Your task to perform on an android device: turn off picture-in-picture Image 0: 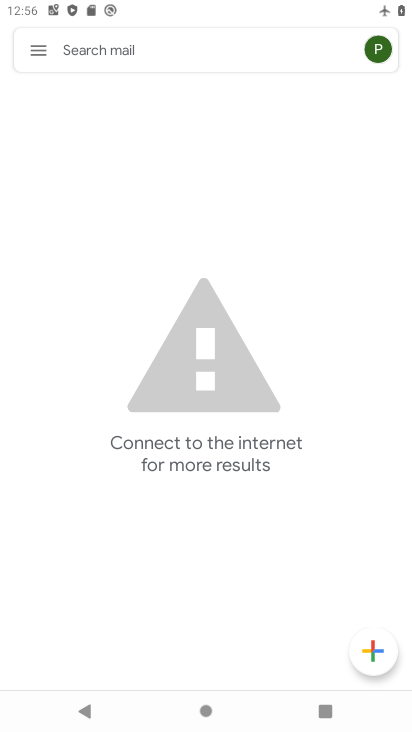
Step 0: press home button
Your task to perform on an android device: turn off picture-in-picture Image 1: 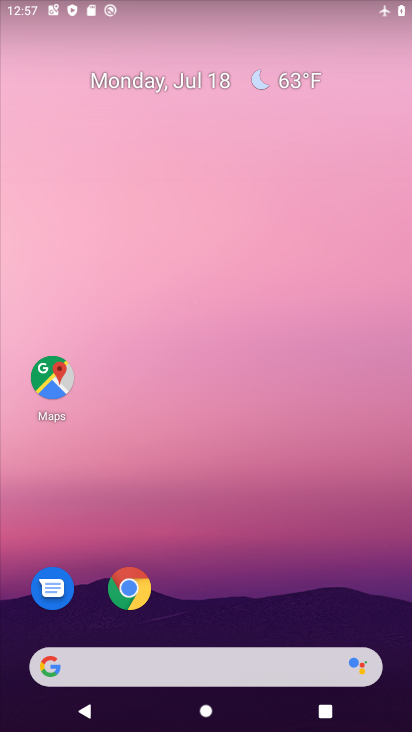
Step 1: drag from (233, 720) to (232, 106)
Your task to perform on an android device: turn off picture-in-picture Image 2: 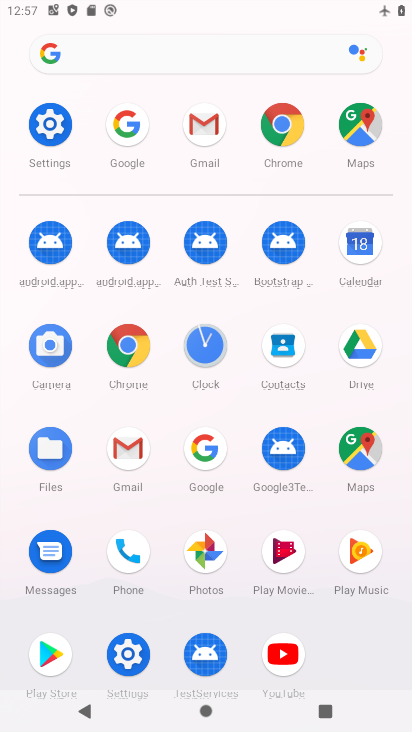
Step 2: click (38, 124)
Your task to perform on an android device: turn off picture-in-picture Image 3: 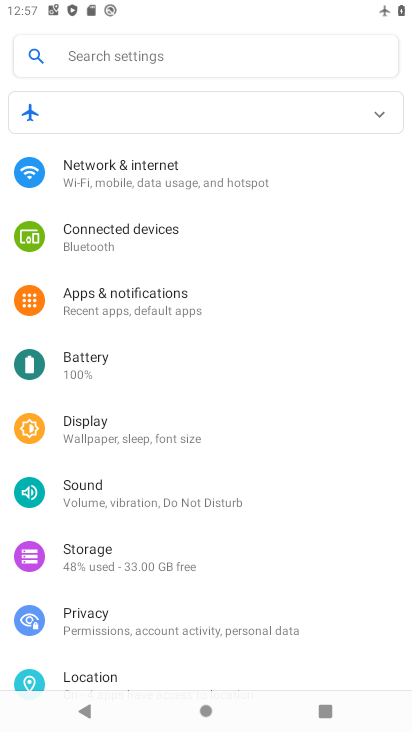
Step 3: click (120, 300)
Your task to perform on an android device: turn off picture-in-picture Image 4: 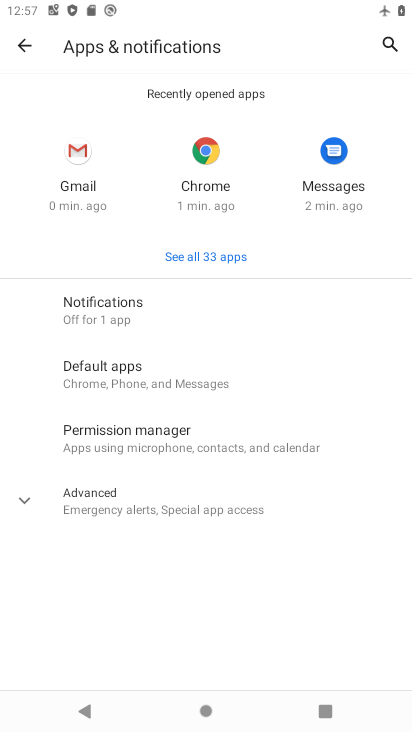
Step 4: click (86, 505)
Your task to perform on an android device: turn off picture-in-picture Image 5: 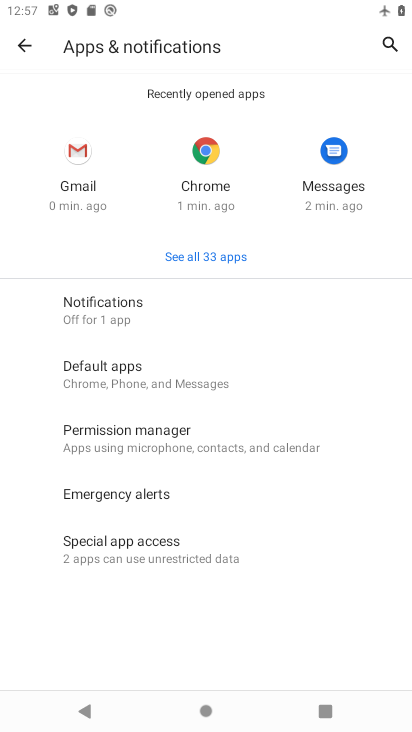
Step 5: click (176, 557)
Your task to perform on an android device: turn off picture-in-picture Image 6: 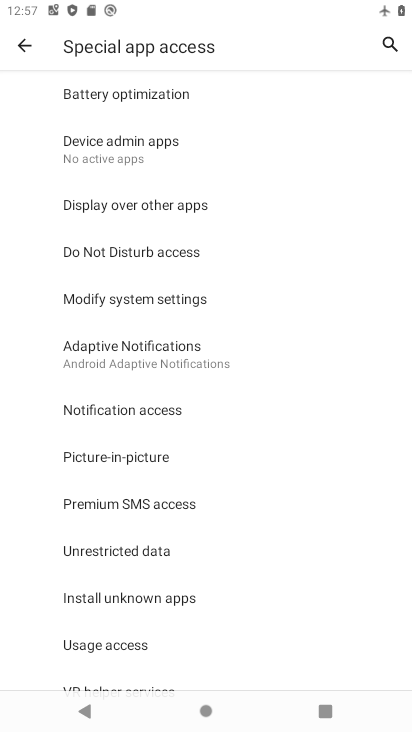
Step 6: click (110, 460)
Your task to perform on an android device: turn off picture-in-picture Image 7: 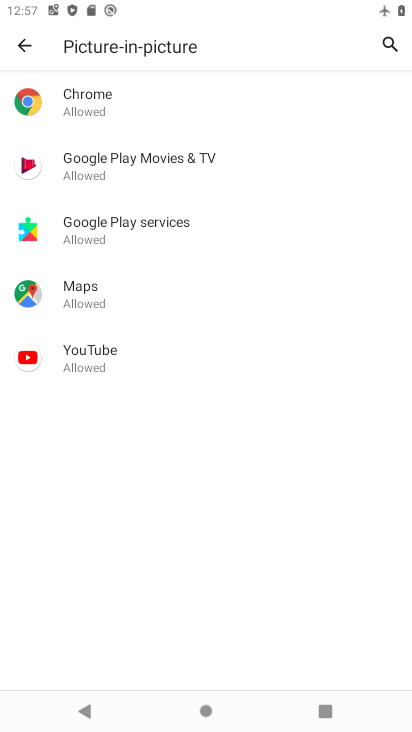
Step 7: click (69, 346)
Your task to perform on an android device: turn off picture-in-picture Image 8: 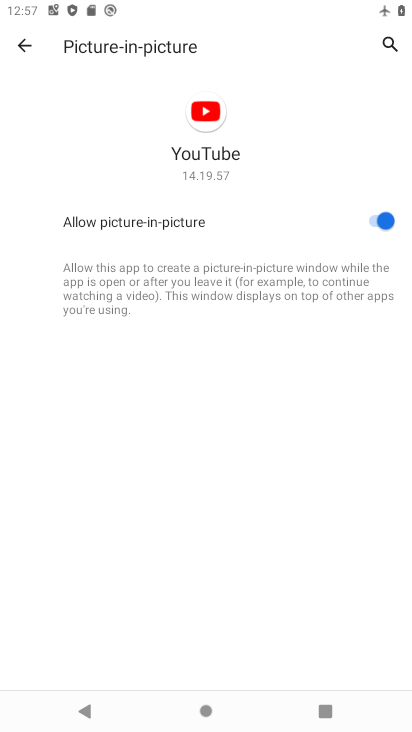
Step 8: click (376, 217)
Your task to perform on an android device: turn off picture-in-picture Image 9: 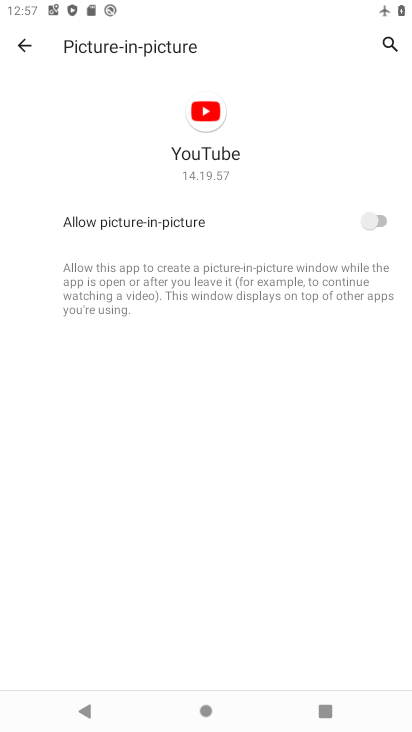
Step 9: task complete